Your task to perform on an android device: Open network settings Image 0: 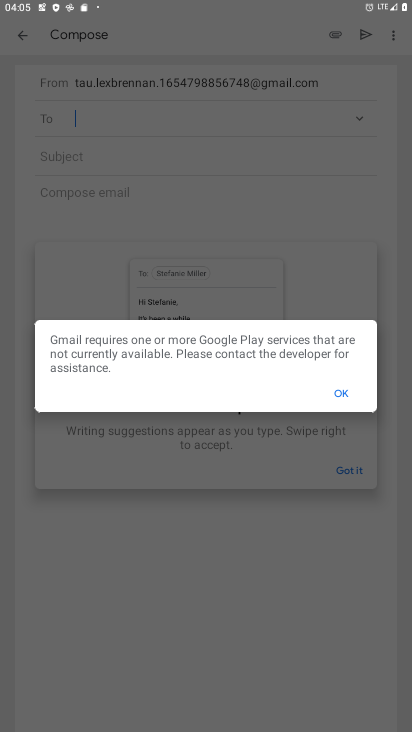
Step 0: press home button
Your task to perform on an android device: Open network settings Image 1: 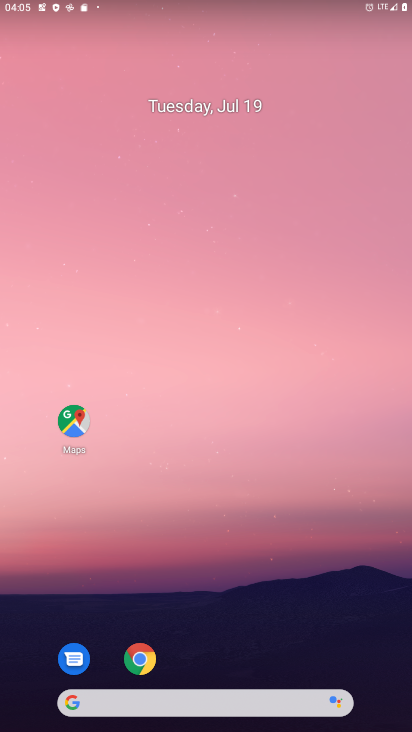
Step 1: drag from (267, 573) to (116, 5)
Your task to perform on an android device: Open network settings Image 2: 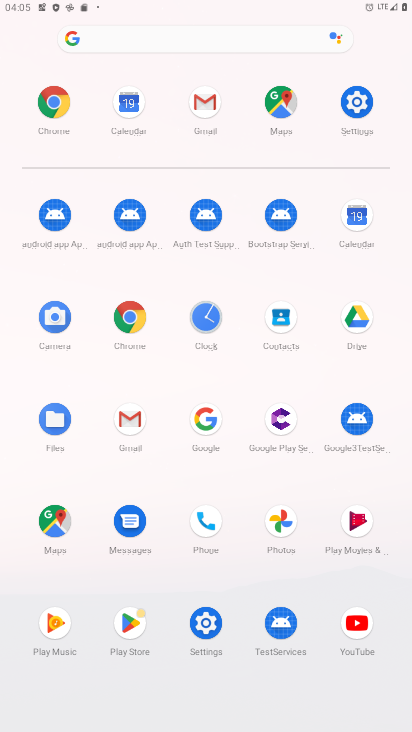
Step 2: click (378, 110)
Your task to perform on an android device: Open network settings Image 3: 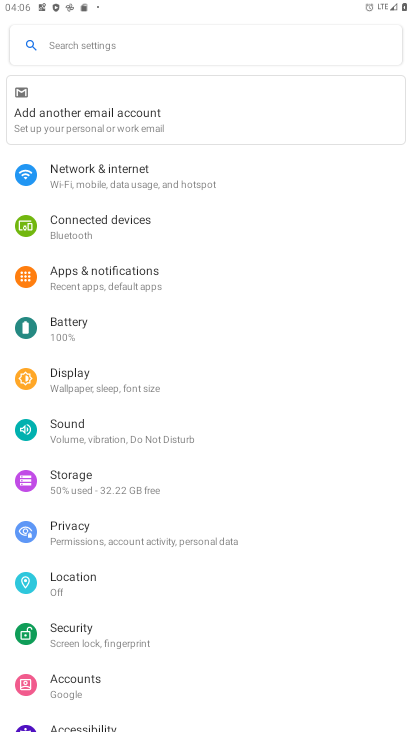
Step 3: click (188, 180)
Your task to perform on an android device: Open network settings Image 4: 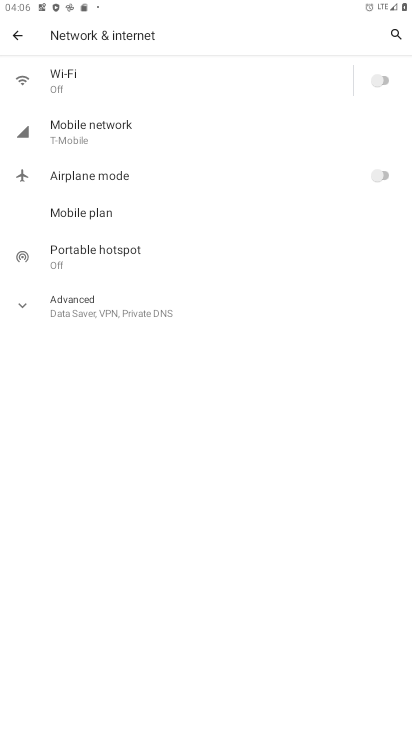
Step 4: task complete